Your task to perform on an android device: Open the map Image 0: 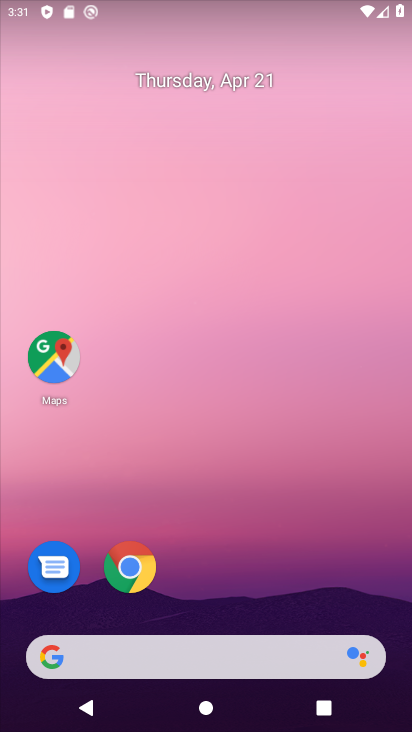
Step 0: drag from (309, 611) to (267, 113)
Your task to perform on an android device: Open the map Image 1: 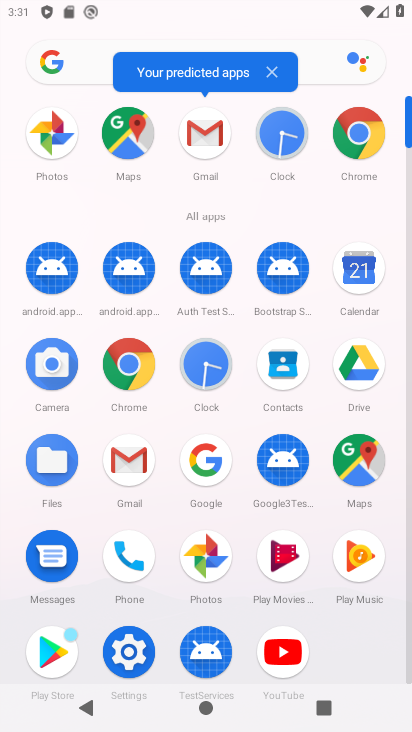
Step 1: click (366, 464)
Your task to perform on an android device: Open the map Image 2: 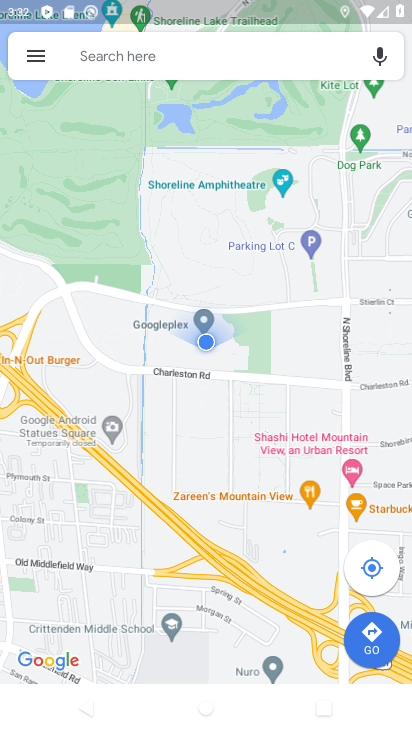
Step 2: task complete